Your task to perform on an android device: Open settings Image 0: 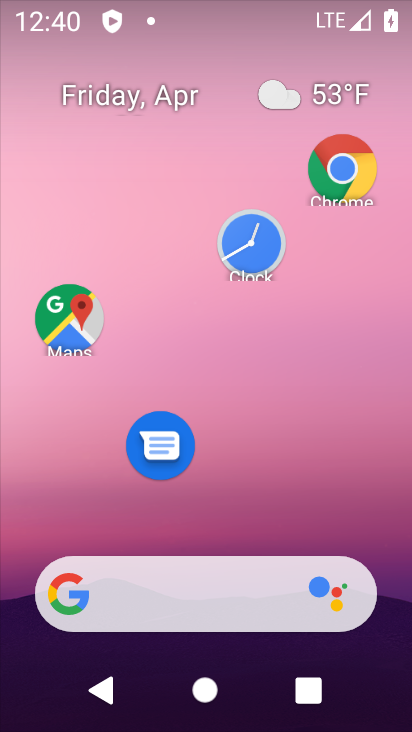
Step 0: drag from (297, 521) to (221, 143)
Your task to perform on an android device: Open settings Image 1: 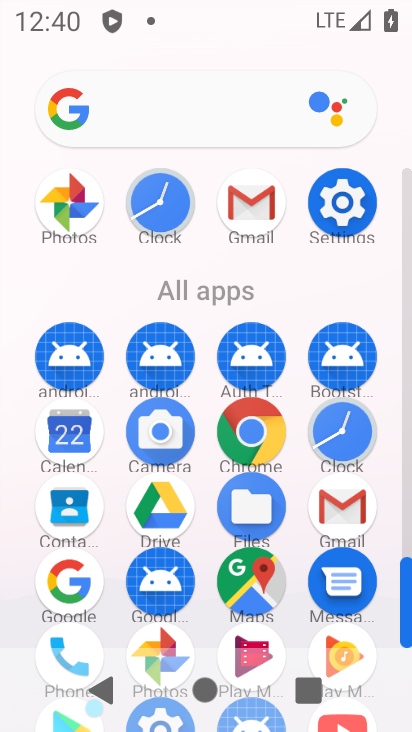
Step 1: click (332, 209)
Your task to perform on an android device: Open settings Image 2: 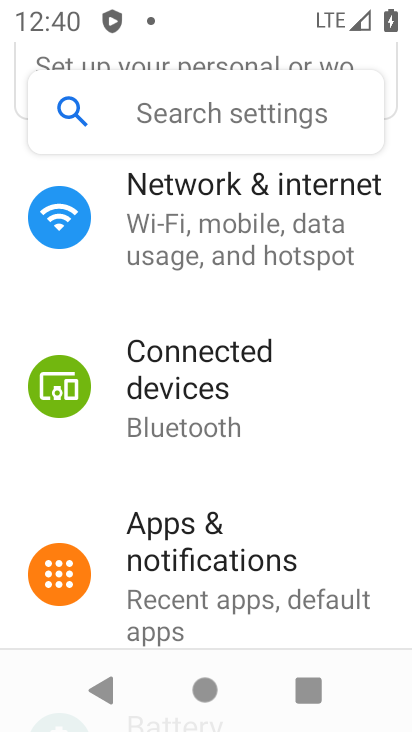
Step 2: task complete